Your task to perform on an android device: open app "Upside-Cash back on gas & food" Image 0: 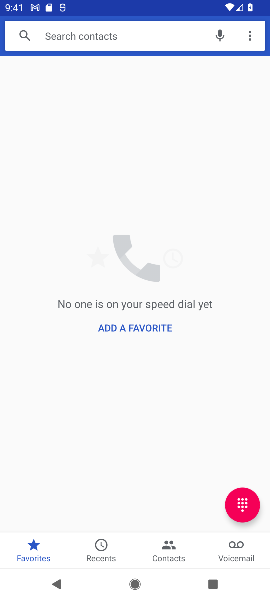
Step 0: press home button
Your task to perform on an android device: open app "Upside-Cash back on gas & food" Image 1: 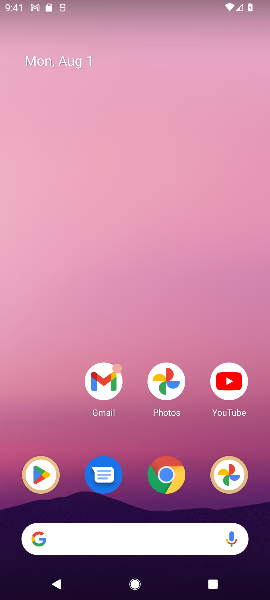
Step 1: drag from (151, 517) to (115, 10)
Your task to perform on an android device: open app "Upside-Cash back on gas & food" Image 2: 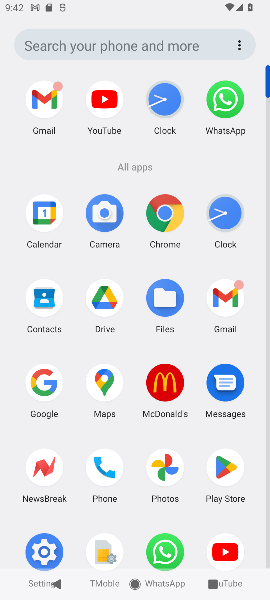
Step 2: click (226, 460)
Your task to perform on an android device: open app "Upside-Cash back on gas & food" Image 3: 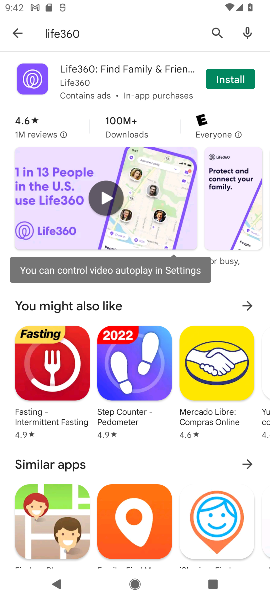
Step 3: click (21, 34)
Your task to perform on an android device: open app "Upside-Cash back on gas & food" Image 4: 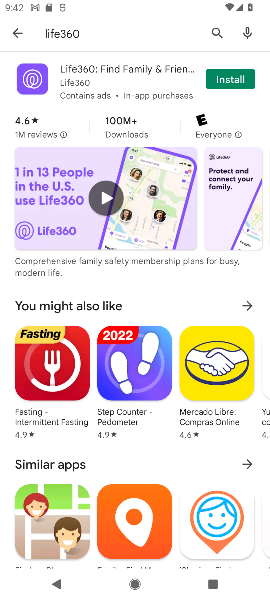
Step 4: click (6, 28)
Your task to perform on an android device: open app "Upside-Cash back on gas & food" Image 5: 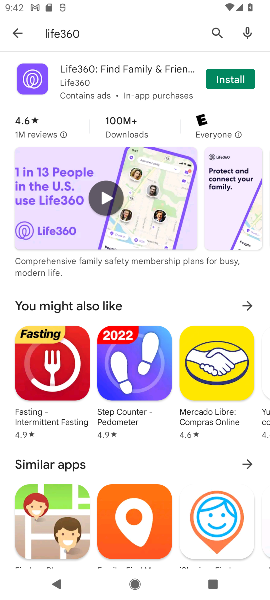
Step 5: click (8, 29)
Your task to perform on an android device: open app "Upside-Cash back on gas & food" Image 6: 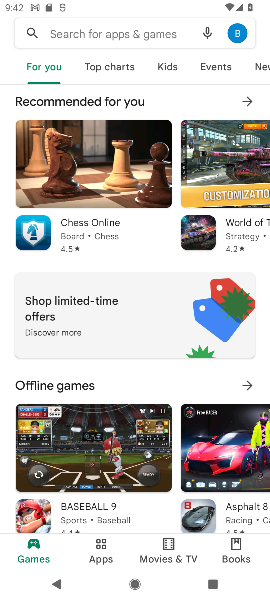
Step 6: click (107, 28)
Your task to perform on an android device: open app "Upside-Cash back on gas & food" Image 7: 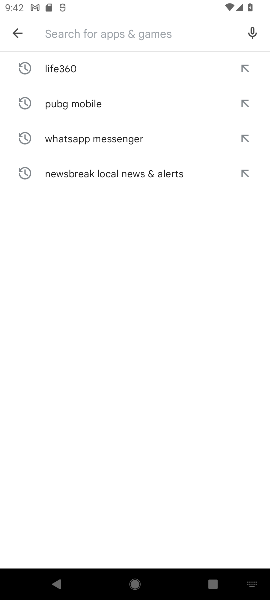
Step 7: type "Upside-Cash back on gas & food"
Your task to perform on an android device: open app "Upside-Cash back on gas & food" Image 8: 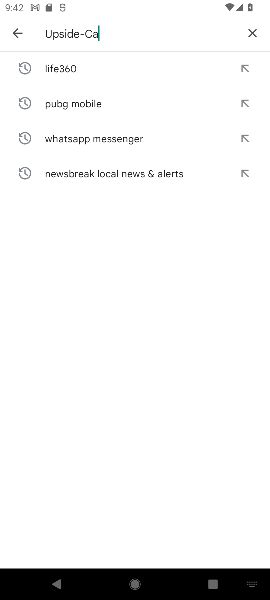
Step 8: type ""
Your task to perform on an android device: open app "Upside-Cash back on gas & food" Image 9: 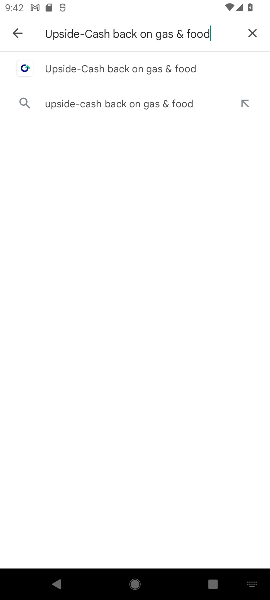
Step 9: click (39, 64)
Your task to perform on an android device: open app "Upside-Cash back on gas & food" Image 10: 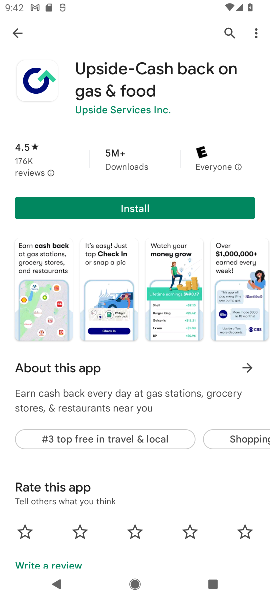
Step 10: task complete